Your task to perform on an android device: change the clock display to show seconds Image 0: 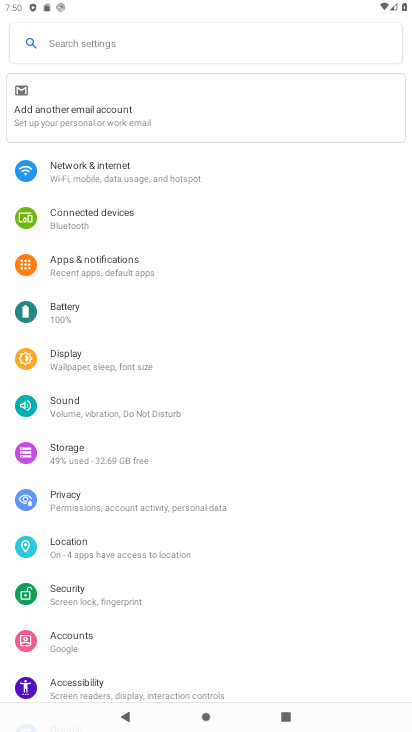
Step 0: drag from (224, 554) to (274, 245)
Your task to perform on an android device: change the clock display to show seconds Image 1: 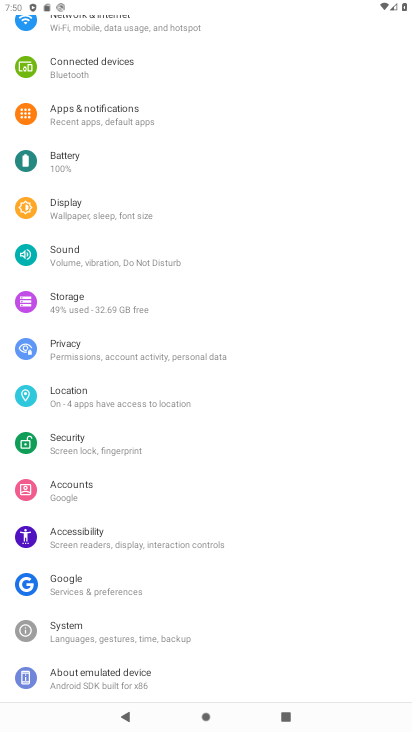
Step 1: press home button
Your task to perform on an android device: change the clock display to show seconds Image 2: 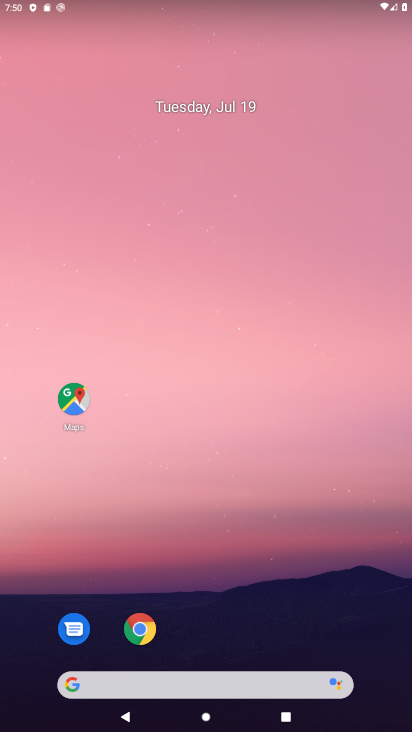
Step 2: drag from (235, 458) to (224, 129)
Your task to perform on an android device: change the clock display to show seconds Image 3: 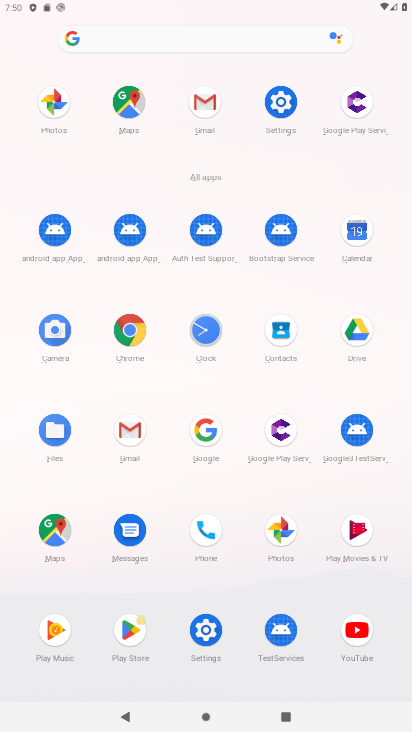
Step 3: click (197, 341)
Your task to perform on an android device: change the clock display to show seconds Image 4: 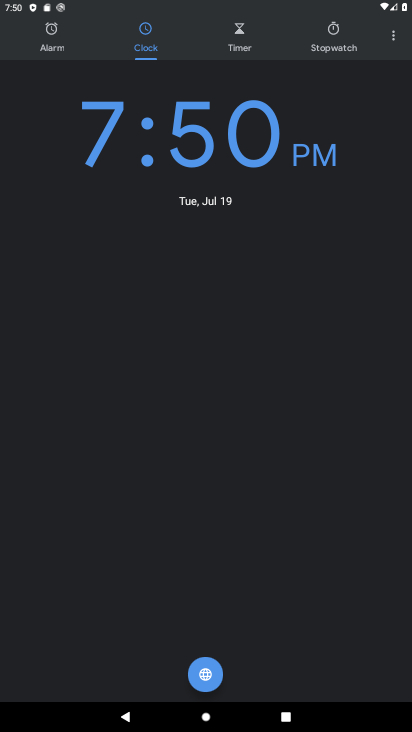
Step 4: drag from (205, 667) to (226, 408)
Your task to perform on an android device: change the clock display to show seconds Image 5: 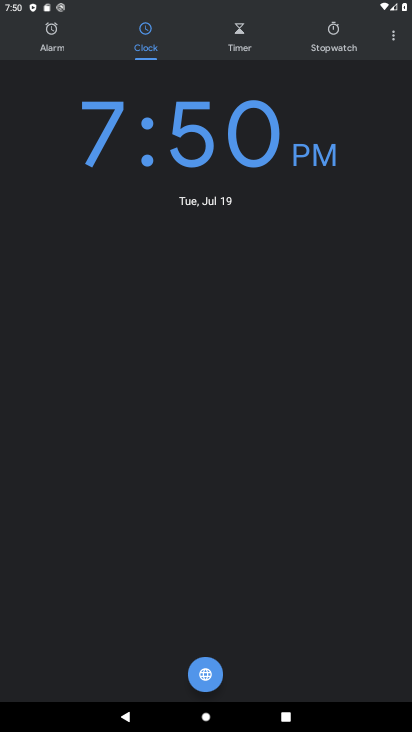
Step 5: click (392, 33)
Your task to perform on an android device: change the clock display to show seconds Image 6: 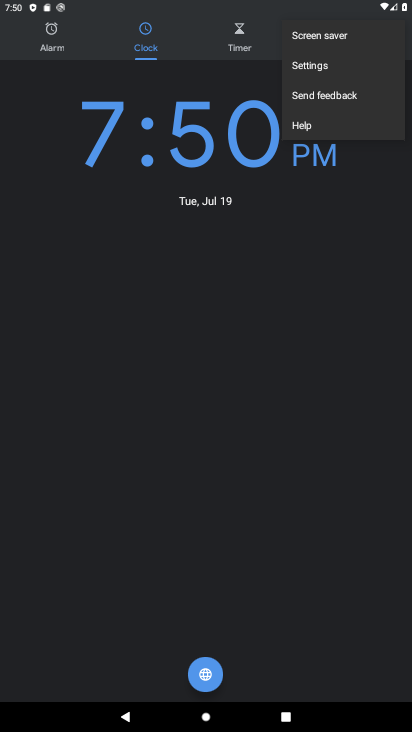
Step 6: click (339, 67)
Your task to perform on an android device: change the clock display to show seconds Image 7: 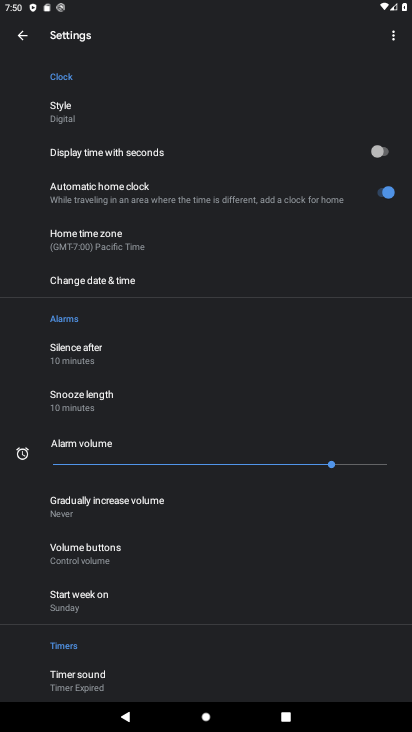
Step 7: click (204, 158)
Your task to perform on an android device: change the clock display to show seconds Image 8: 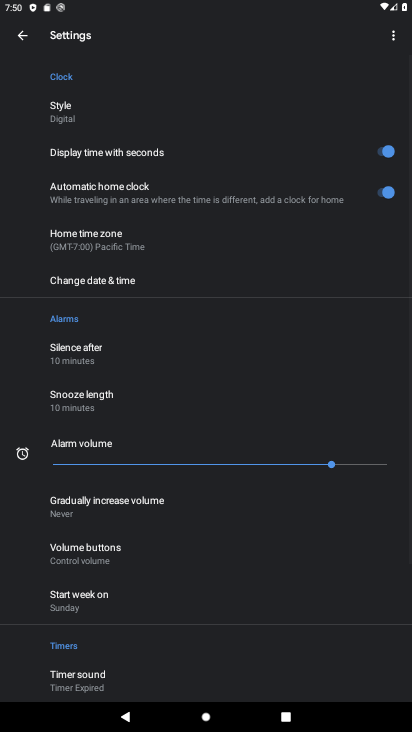
Step 8: task complete